Your task to perform on an android device: Go to Yahoo.com Image 0: 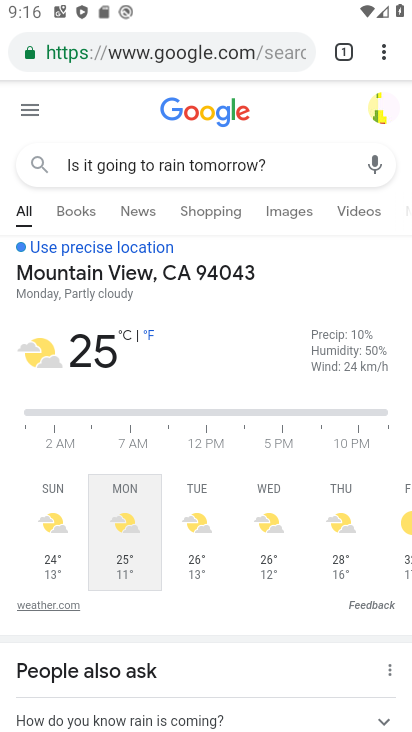
Step 0: click (256, 68)
Your task to perform on an android device: Go to Yahoo.com Image 1: 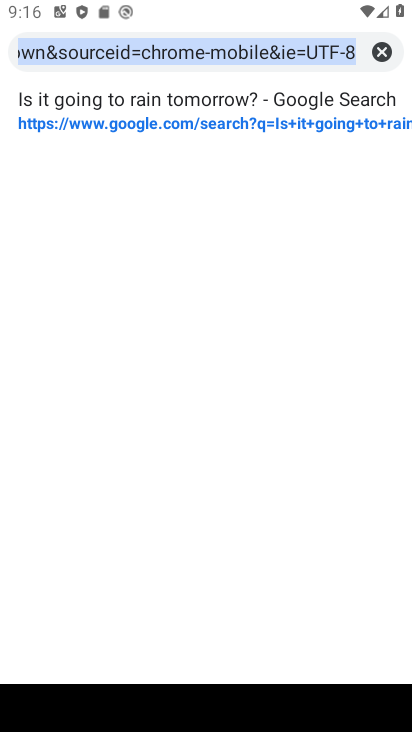
Step 1: type "yahoo.com"
Your task to perform on an android device: Go to Yahoo.com Image 2: 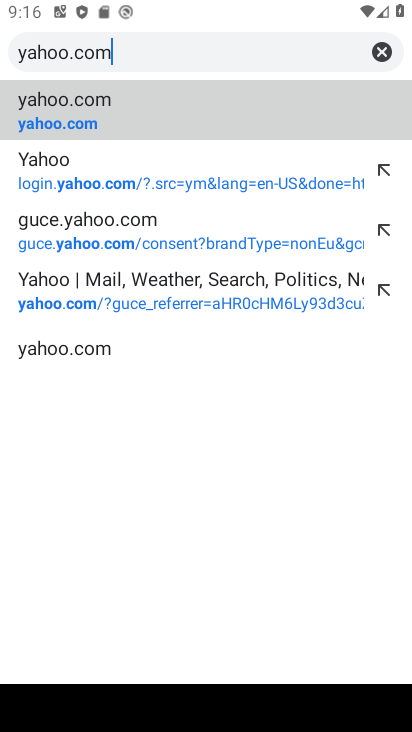
Step 2: click (92, 96)
Your task to perform on an android device: Go to Yahoo.com Image 3: 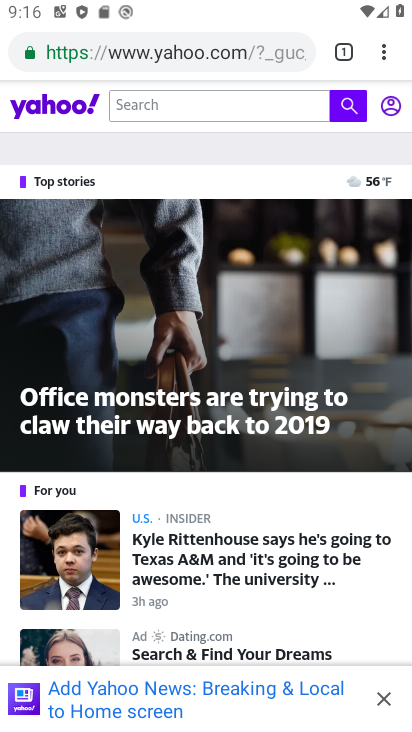
Step 3: task complete